Your task to perform on an android device: What is the recent news? Image 0: 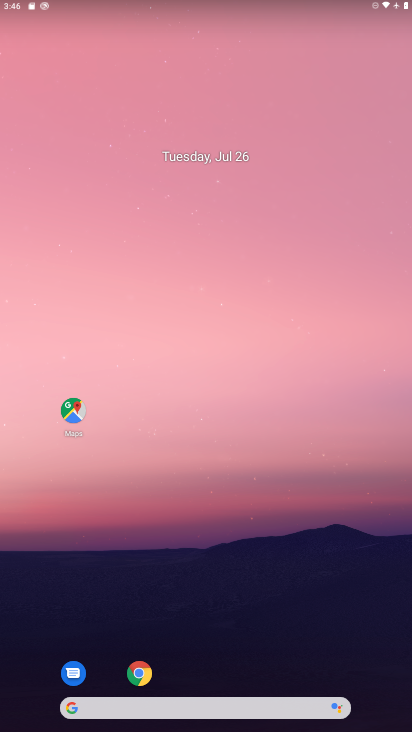
Step 0: click (164, 707)
Your task to perform on an android device: What is the recent news? Image 1: 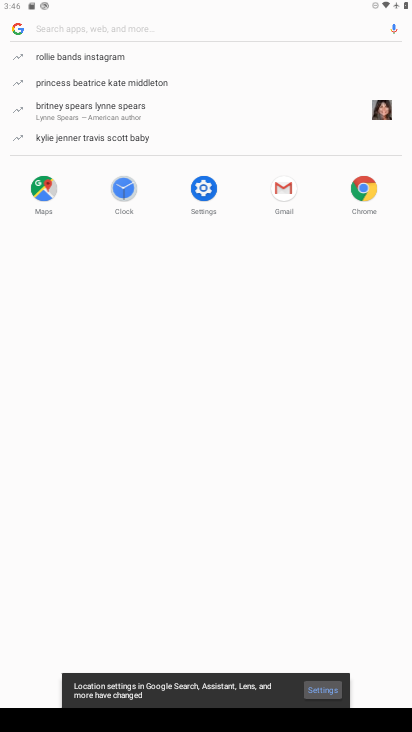
Step 1: click (78, 30)
Your task to perform on an android device: What is the recent news? Image 2: 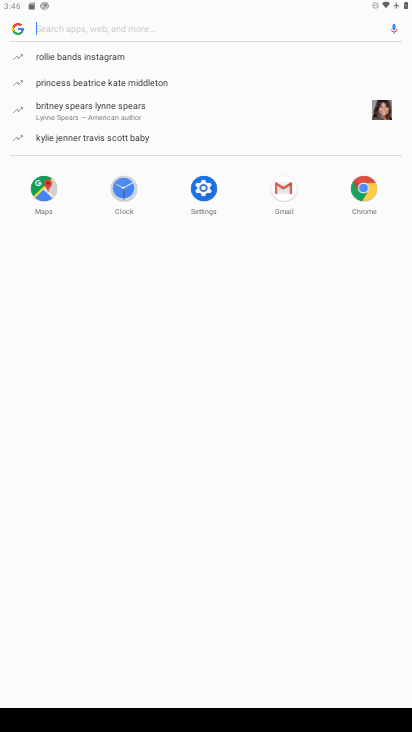
Step 2: type "recent news "
Your task to perform on an android device: What is the recent news? Image 3: 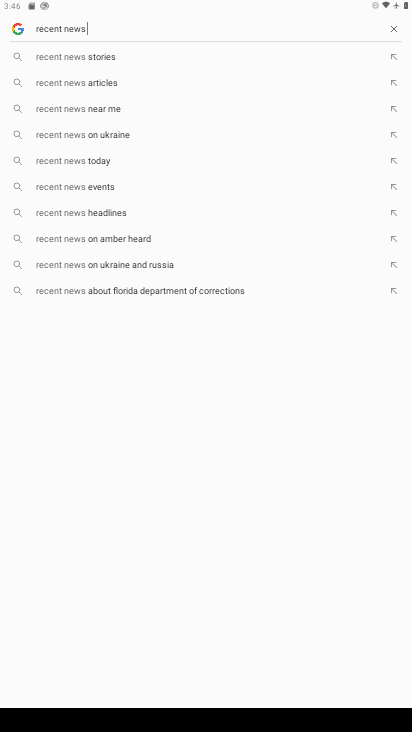
Step 3: click (95, 168)
Your task to perform on an android device: What is the recent news? Image 4: 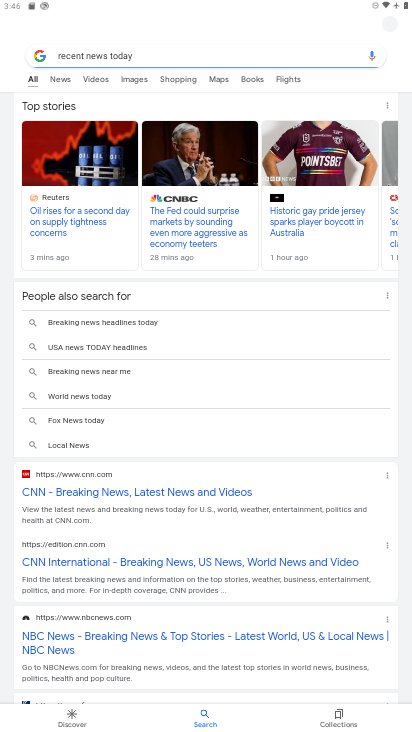
Step 4: click (68, 86)
Your task to perform on an android device: What is the recent news? Image 5: 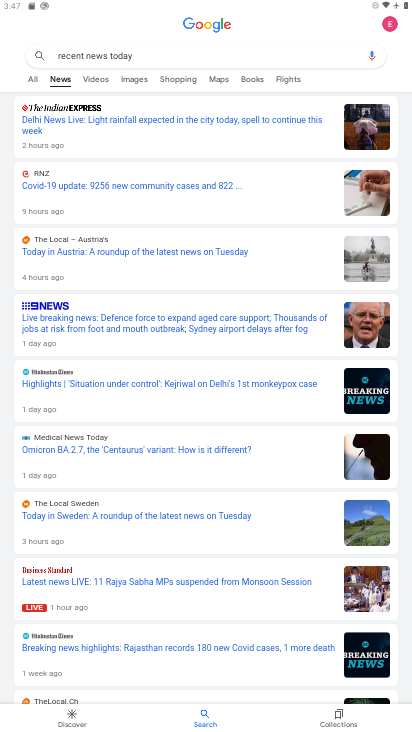
Step 5: click (56, 136)
Your task to perform on an android device: What is the recent news? Image 6: 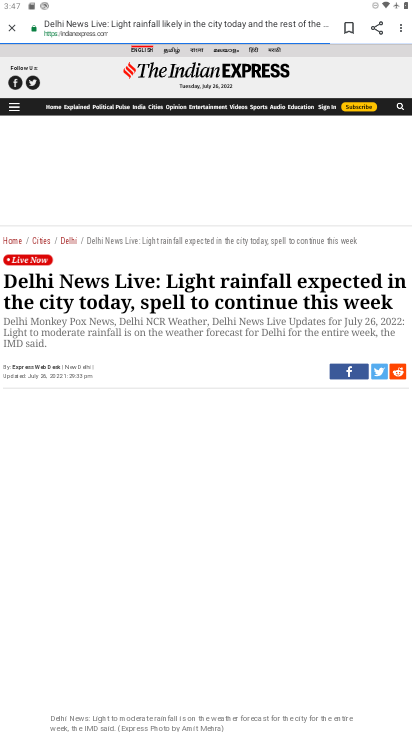
Step 6: task complete